Your task to perform on an android device: turn off sleep mode Image 0: 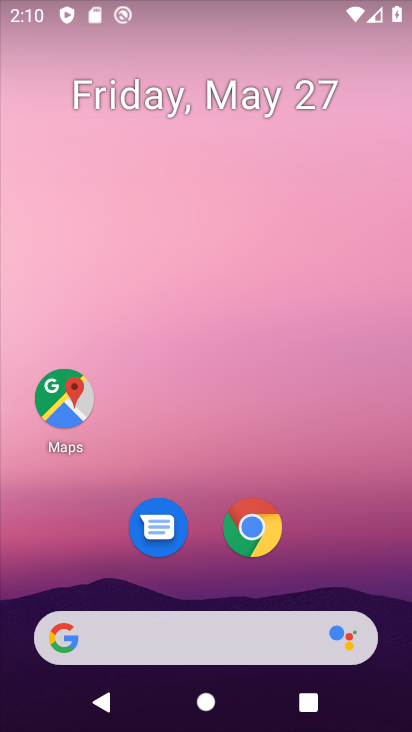
Step 0: drag from (216, 599) to (268, 236)
Your task to perform on an android device: turn off sleep mode Image 1: 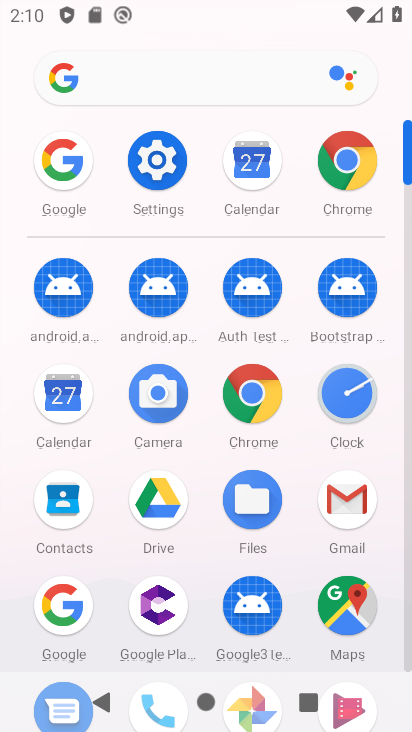
Step 1: click (156, 163)
Your task to perform on an android device: turn off sleep mode Image 2: 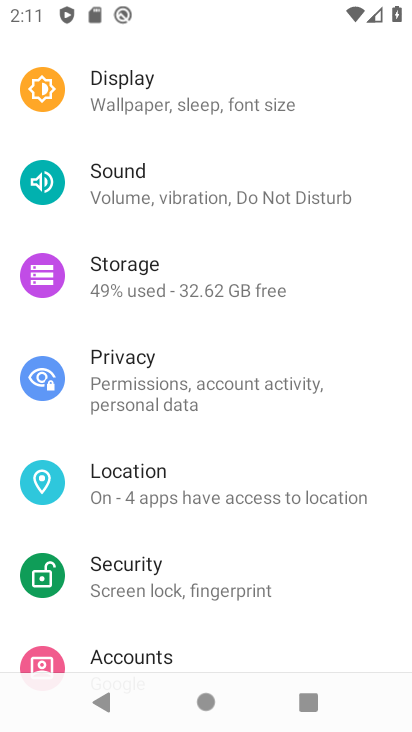
Step 2: click (222, 101)
Your task to perform on an android device: turn off sleep mode Image 3: 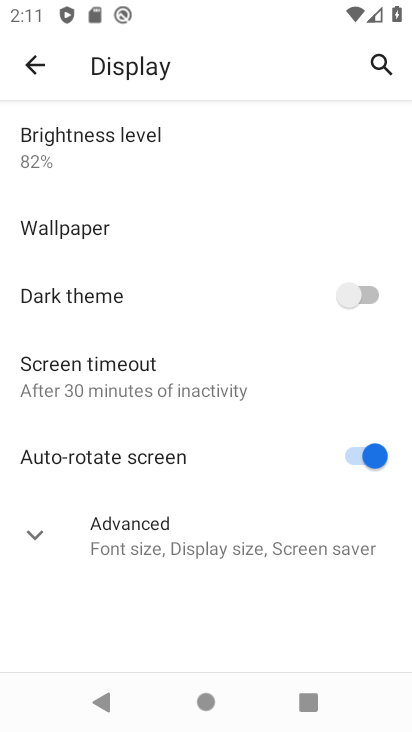
Step 3: click (120, 537)
Your task to perform on an android device: turn off sleep mode Image 4: 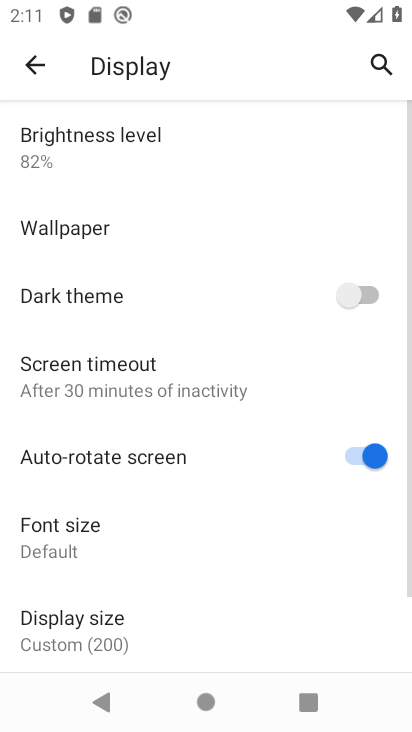
Step 4: click (107, 359)
Your task to perform on an android device: turn off sleep mode Image 5: 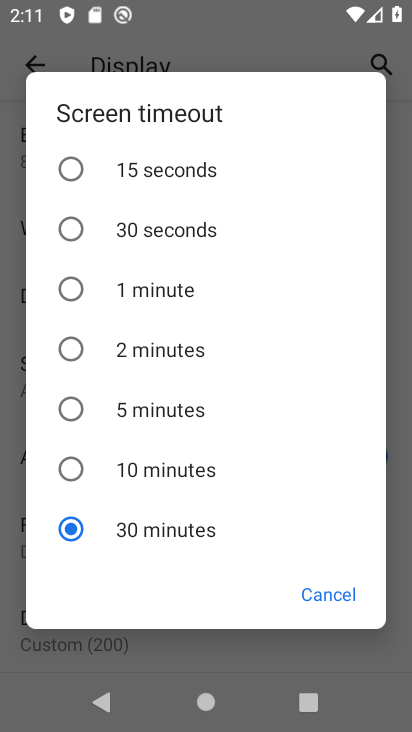
Step 5: click (167, 173)
Your task to perform on an android device: turn off sleep mode Image 6: 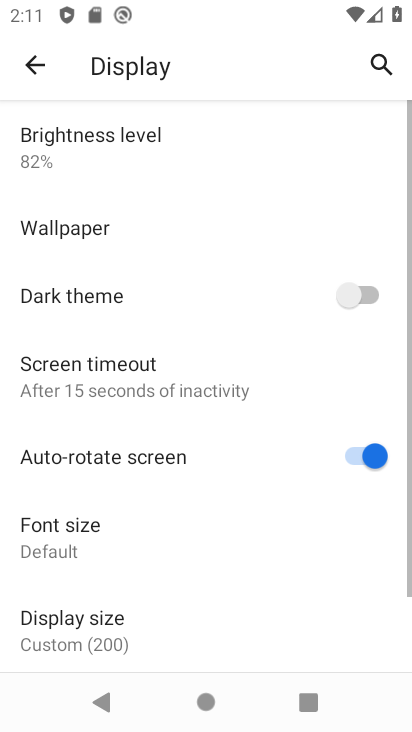
Step 6: task complete